Your task to perform on an android device: Clear the cart on costco.com. Image 0: 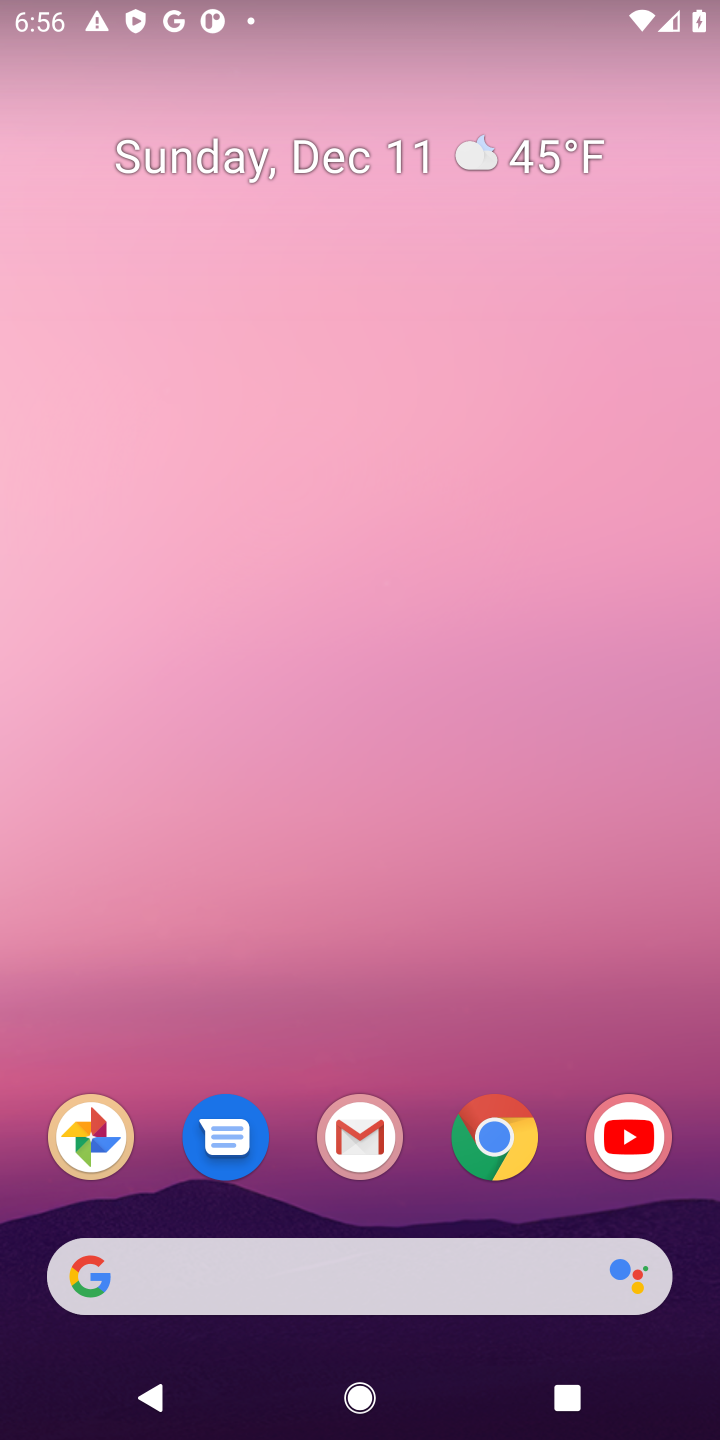
Step 0: click (489, 1160)
Your task to perform on an android device: Clear the cart on costco.com. Image 1: 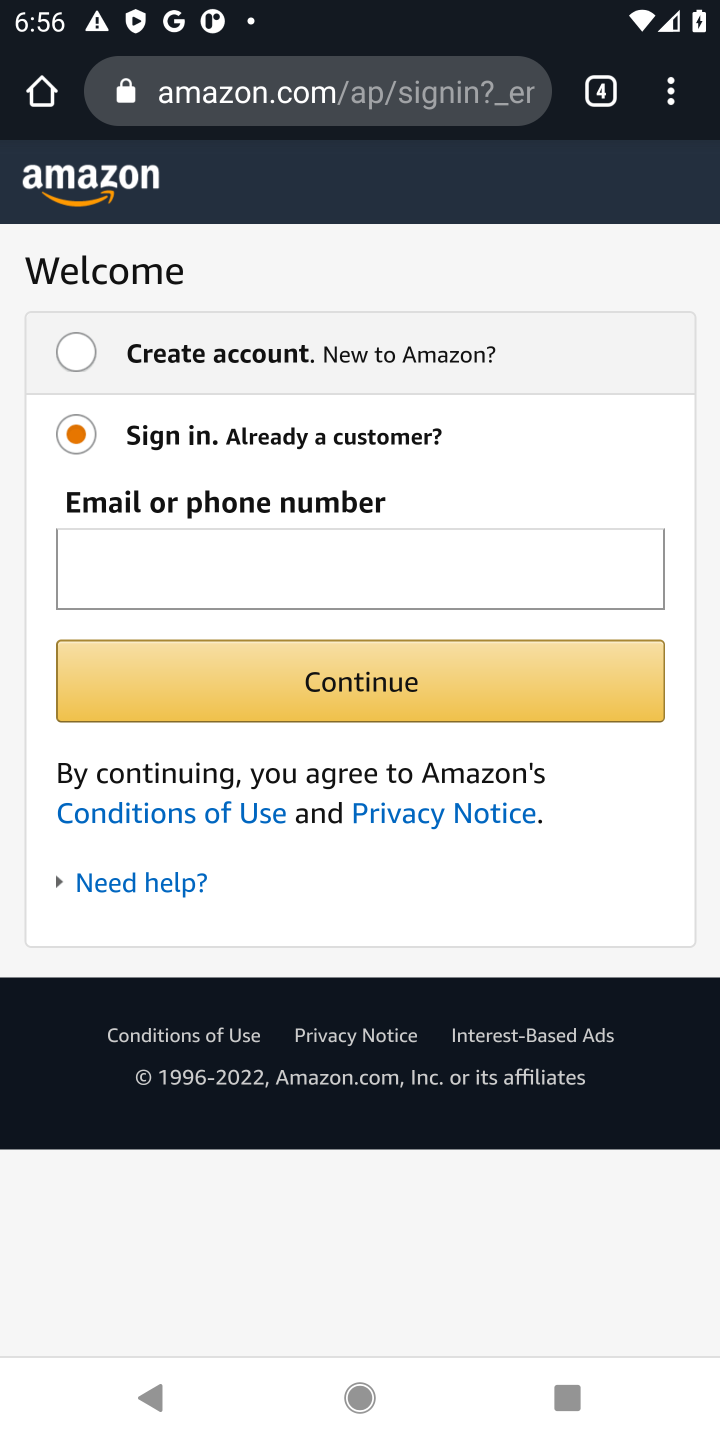
Step 1: click (354, 95)
Your task to perform on an android device: Clear the cart on costco.com. Image 2: 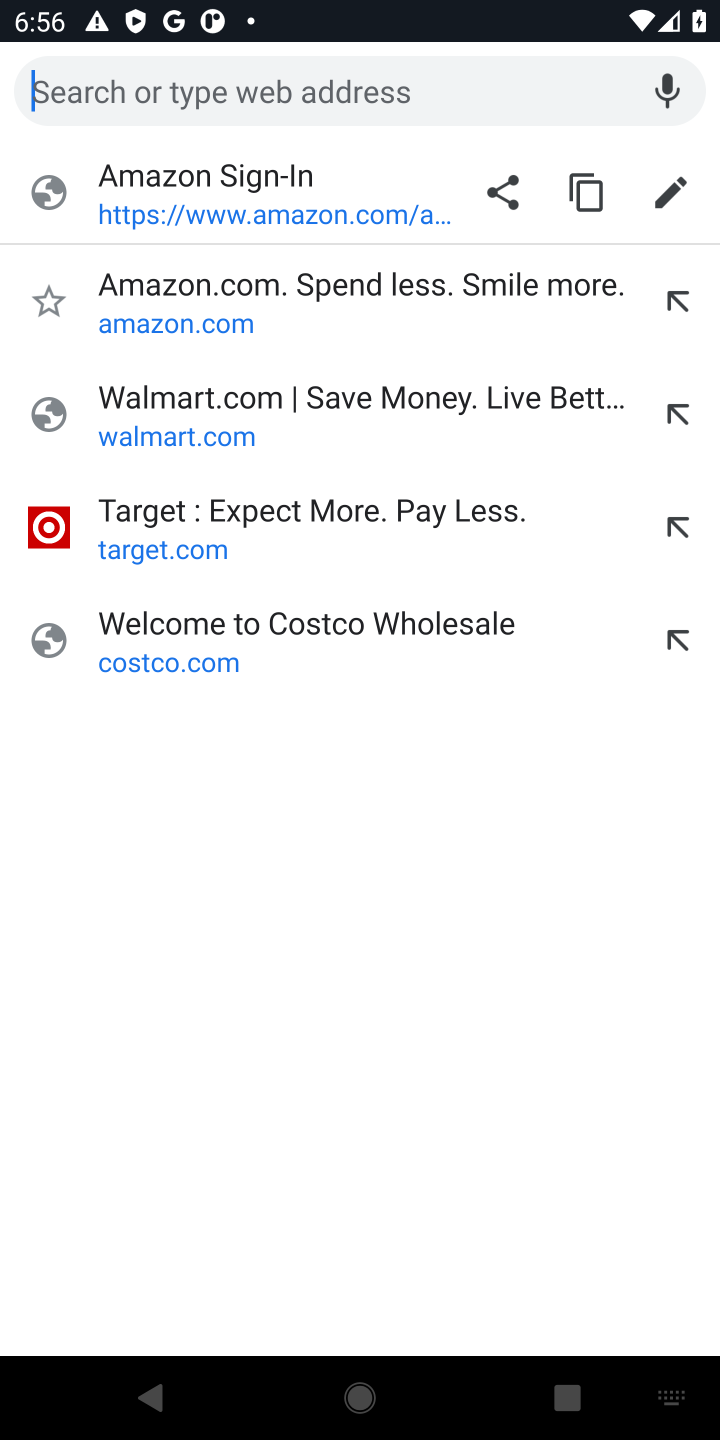
Step 2: click (179, 647)
Your task to perform on an android device: Clear the cart on costco.com. Image 3: 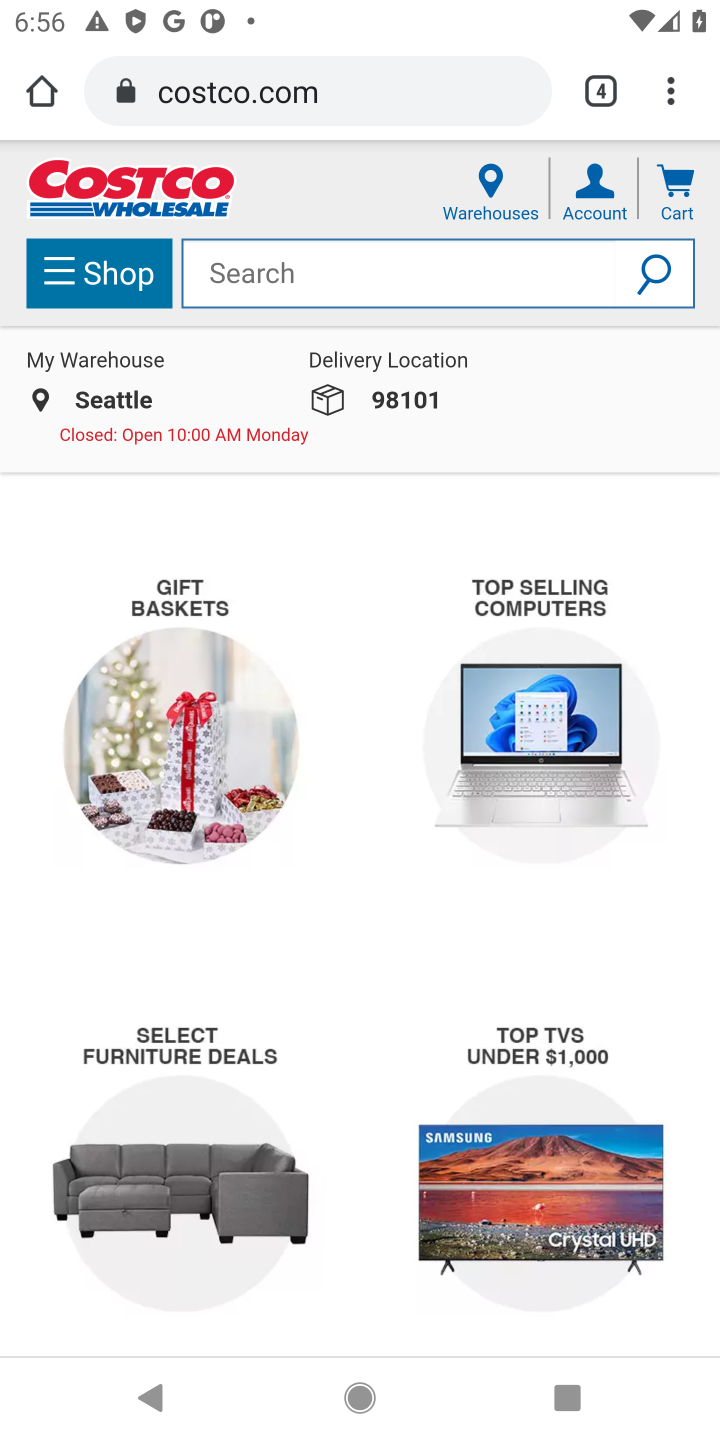
Step 3: click (669, 212)
Your task to perform on an android device: Clear the cart on costco.com. Image 4: 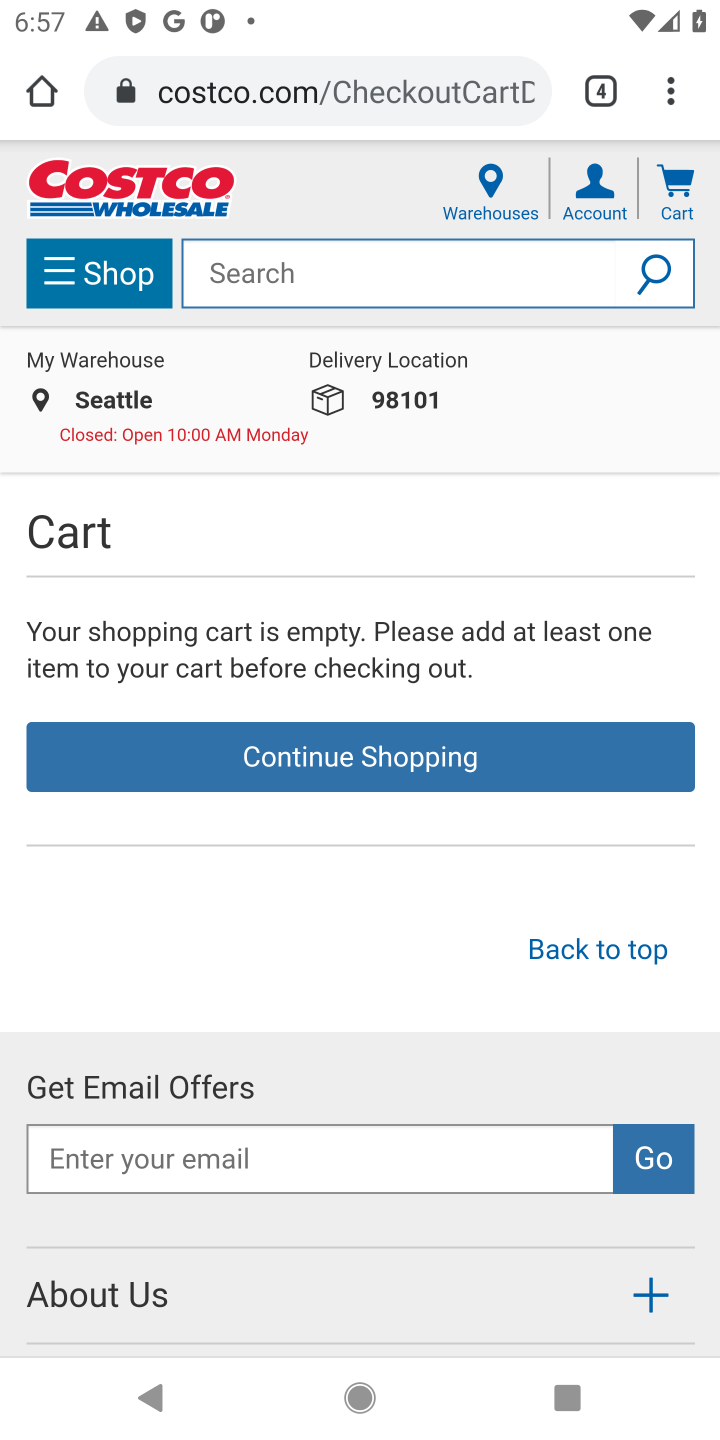
Step 4: task complete